Your task to perform on an android device: Go to settings Image 0: 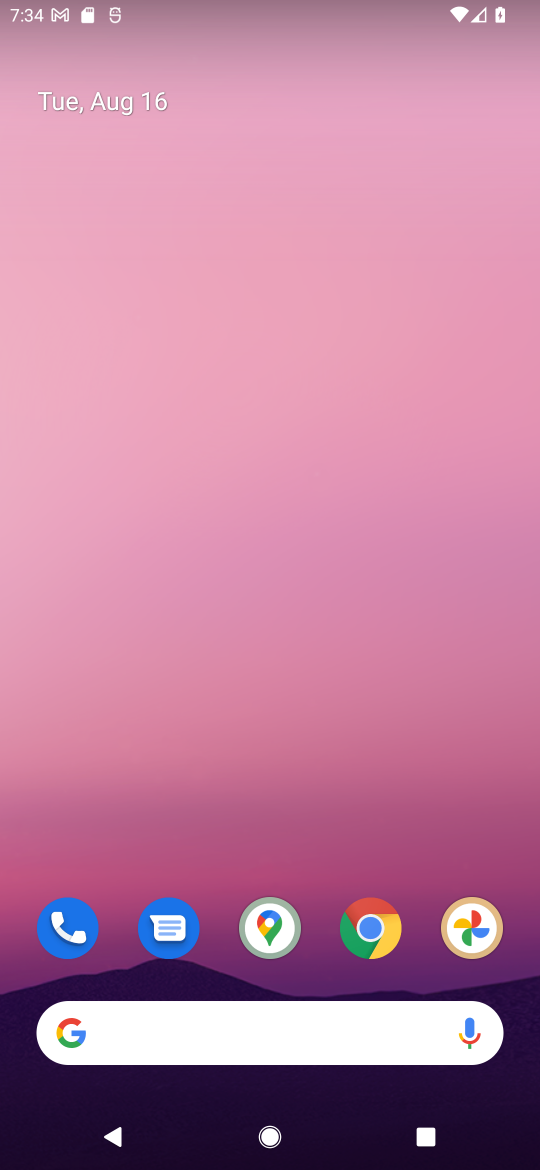
Step 0: drag from (272, 1019) to (276, 27)
Your task to perform on an android device: Go to settings Image 1: 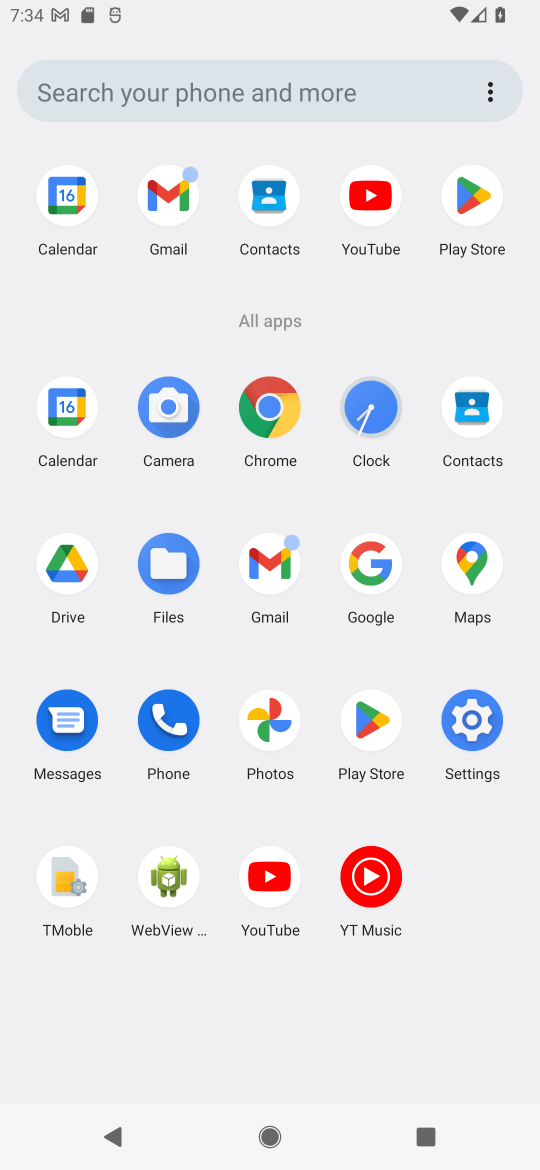
Step 1: click (455, 713)
Your task to perform on an android device: Go to settings Image 2: 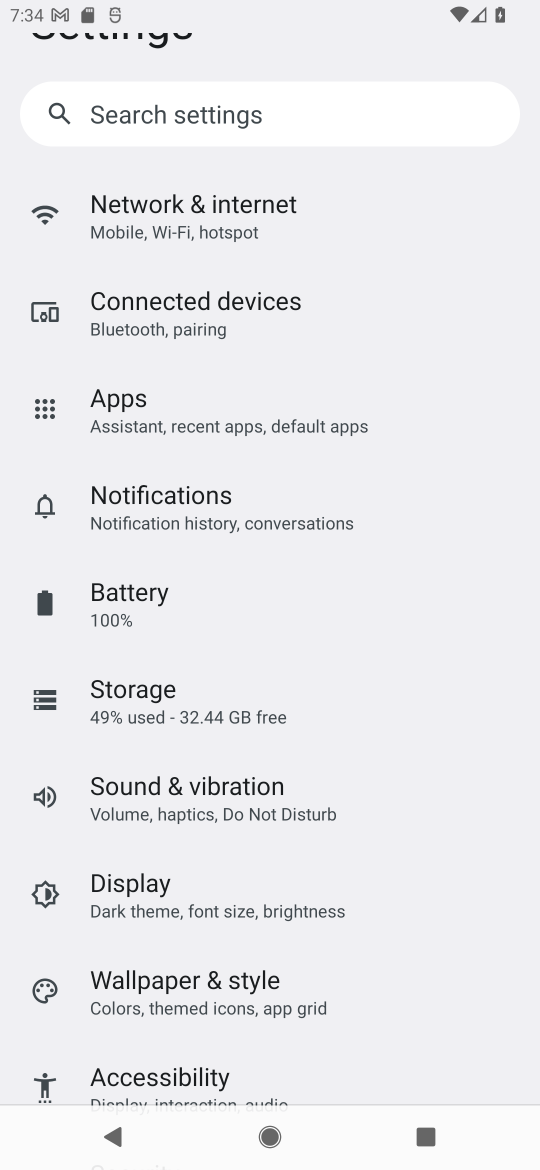
Step 2: task complete